Your task to perform on an android device: Go to Reddit.com Image 0: 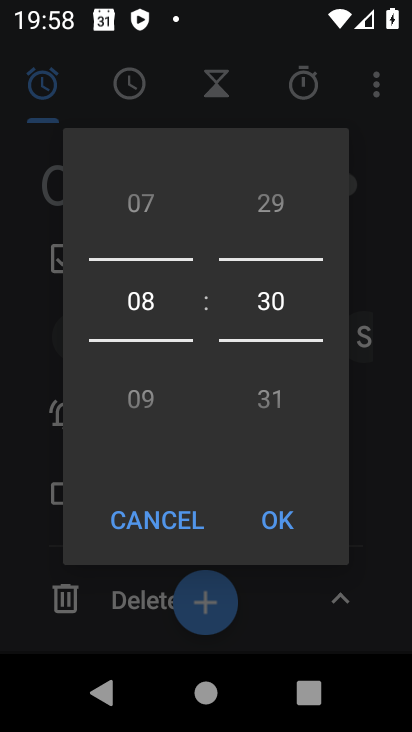
Step 0: press home button
Your task to perform on an android device: Go to Reddit.com Image 1: 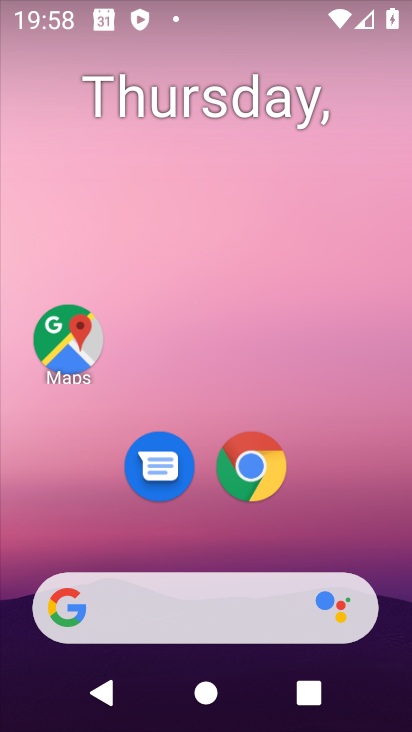
Step 1: click (187, 610)
Your task to perform on an android device: Go to Reddit.com Image 2: 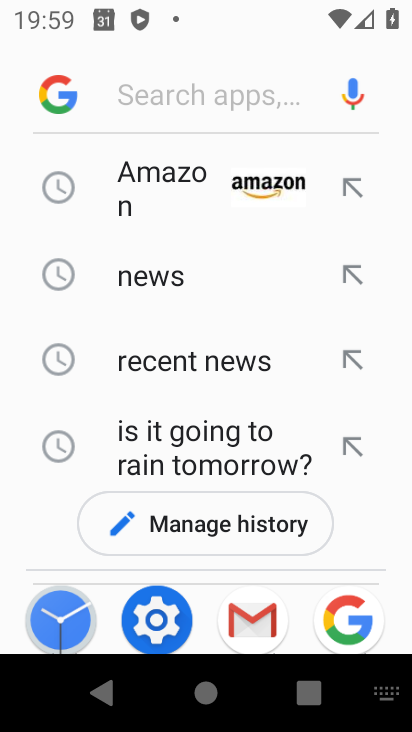
Step 2: type "Reddit.com"
Your task to perform on an android device: Go to Reddit.com Image 3: 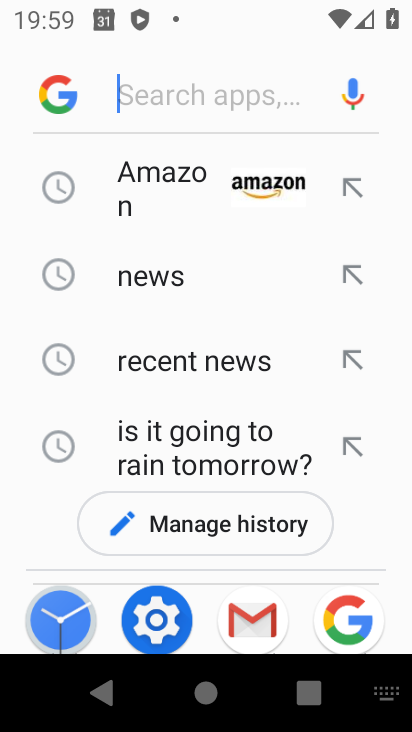
Step 3: click (189, 96)
Your task to perform on an android device: Go to Reddit.com Image 4: 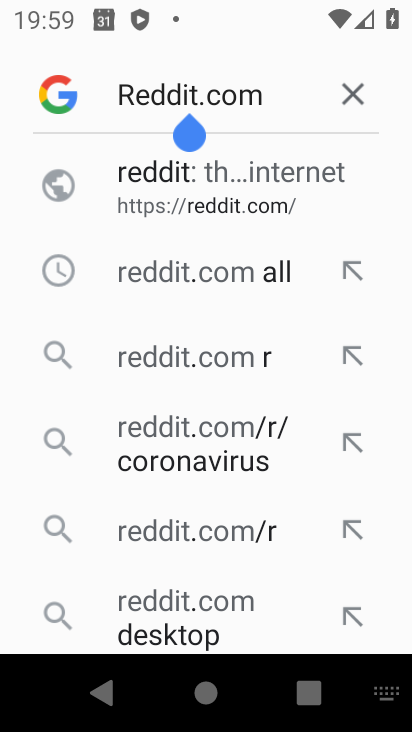
Step 4: click (228, 203)
Your task to perform on an android device: Go to Reddit.com Image 5: 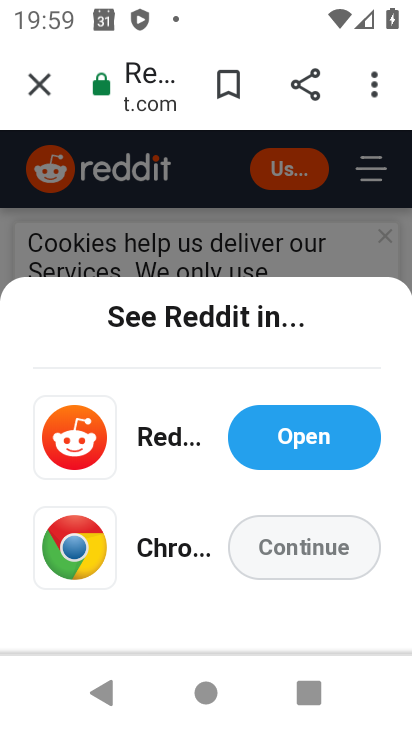
Step 5: task complete